Your task to perform on an android device: search for starred emails in the gmail app Image 0: 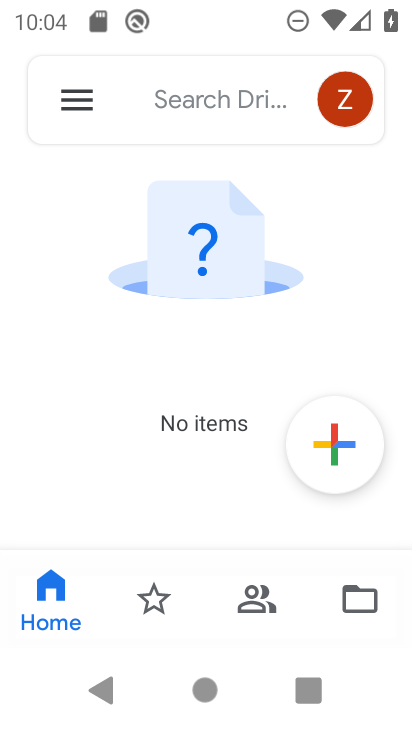
Step 0: press home button
Your task to perform on an android device: search for starred emails in the gmail app Image 1: 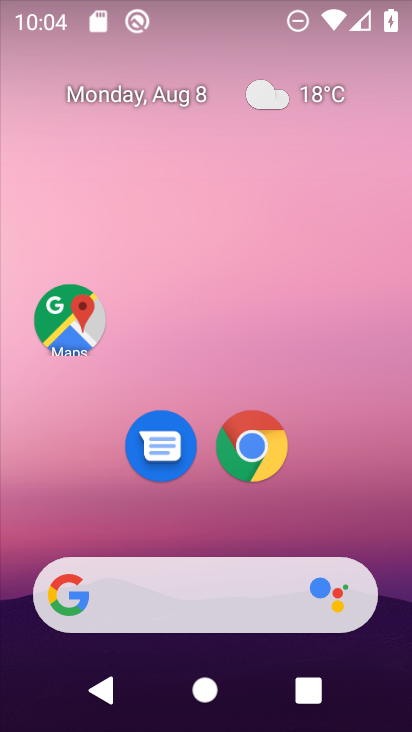
Step 1: drag from (399, 623) to (361, 160)
Your task to perform on an android device: search for starred emails in the gmail app Image 2: 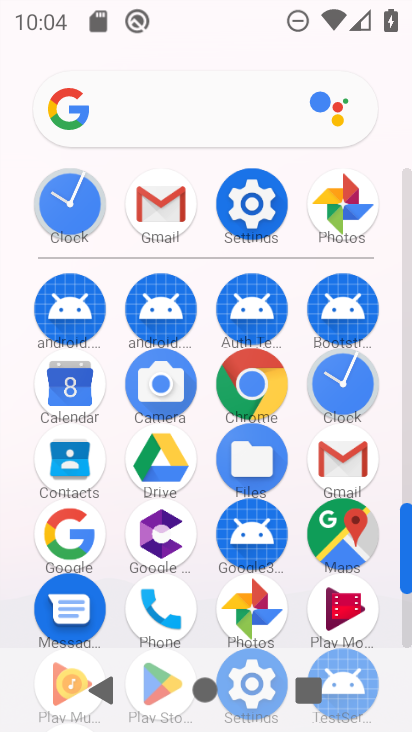
Step 2: click (343, 463)
Your task to perform on an android device: search for starred emails in the gmail app Image 3: 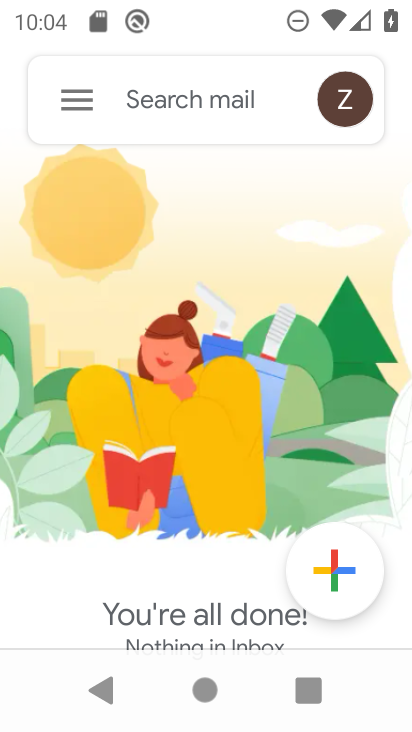
Step 3: click (78, 99)
Your task to perform on an android device: search for starred emails in the gmail app Image 4: 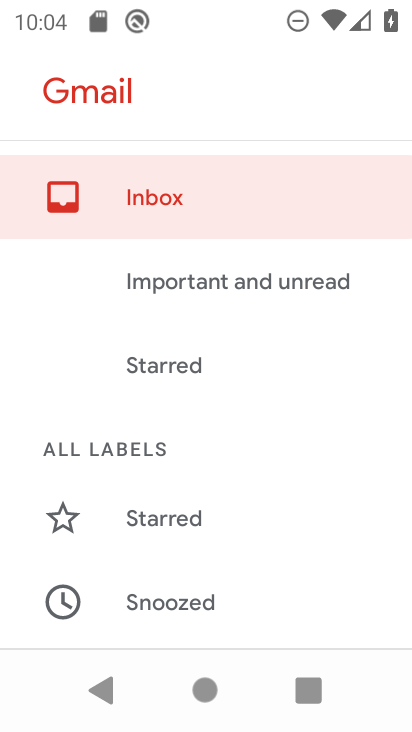
Step 4: drag from (269, 534) to (274, 285)
Your task to perform on an android device: search for starred emails in the gmail app Image 5: 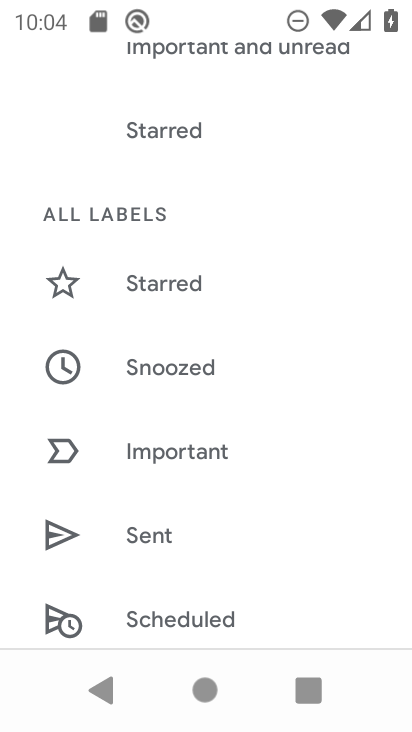
Step 5: click (155, 290)
Your task to perform on an android device: search for starred emails in the gmail app Image 6: 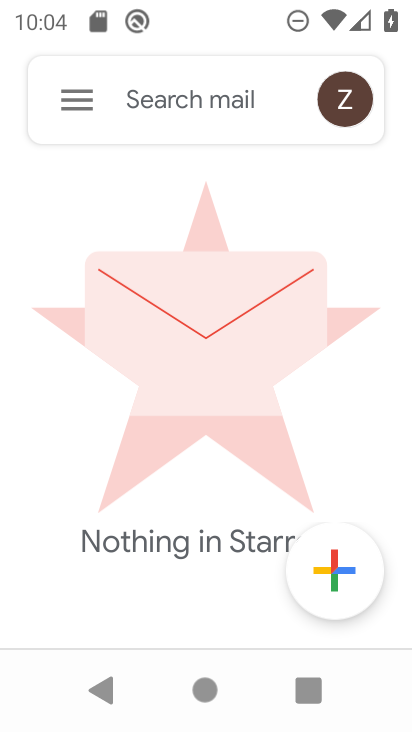
Step 6: task complete